Your task to perform on an android device: search for accent chairs on article.com Image 0: 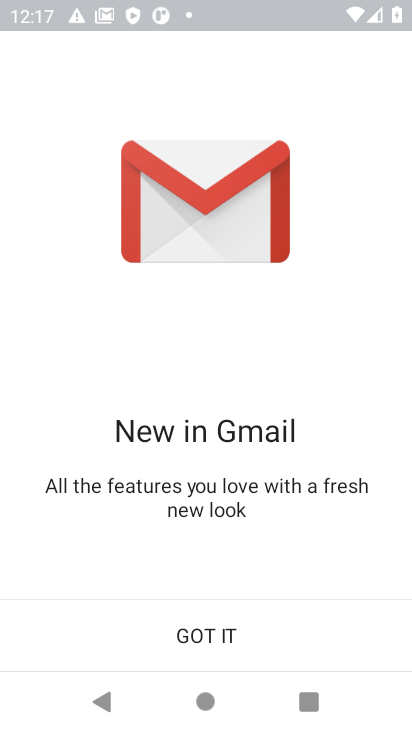
Step 0: press home button
Your task to perform on an android device: search for accent chairs on article.com Image 1: 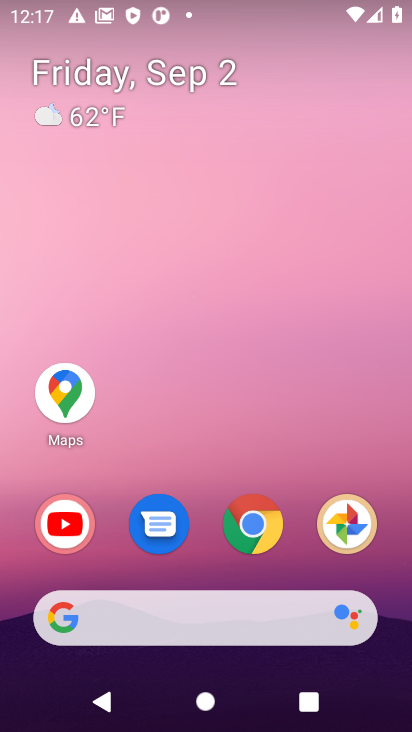
Step 1: click (270, 531)
Your task to perform on an android device: search for accent chairs on article.com Image 2: 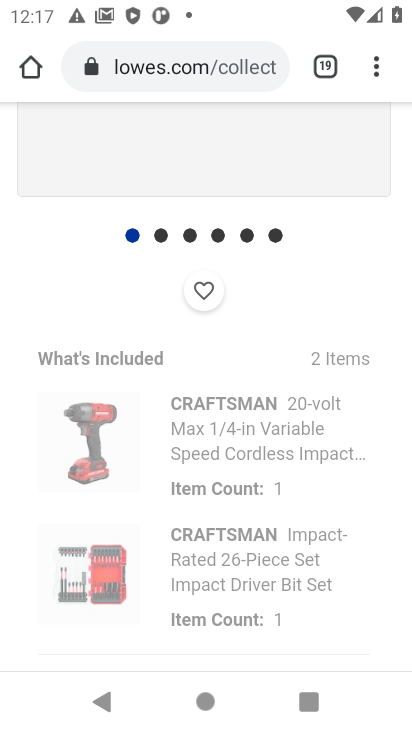
Step 2: click (329, 60)
Your task to perform on an android device: search for accent chairs on article.com Image 3: 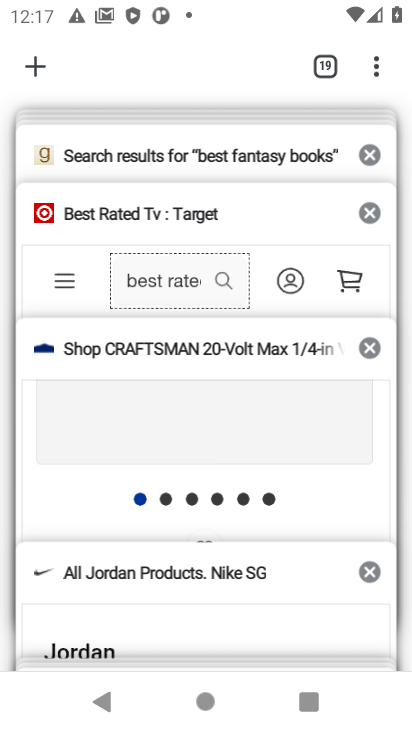
Step 3: click (37, 72)
Your task to perform on an android device: search for accent chairs on article.com Image 4: 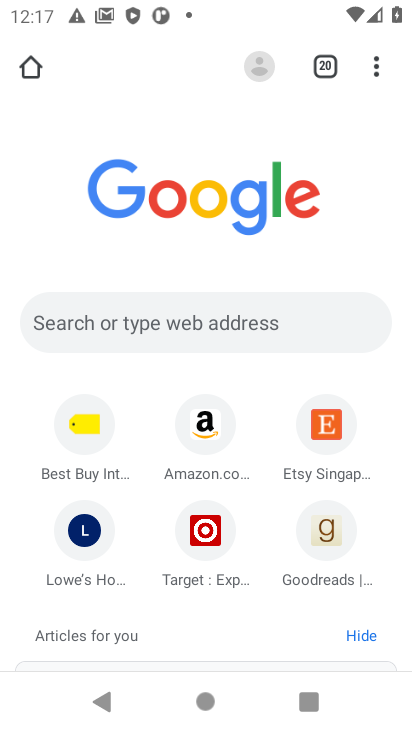
Step 4: click (273, 334)
Your task to perform on an android device: search for accent chairs on article.com Image 5: 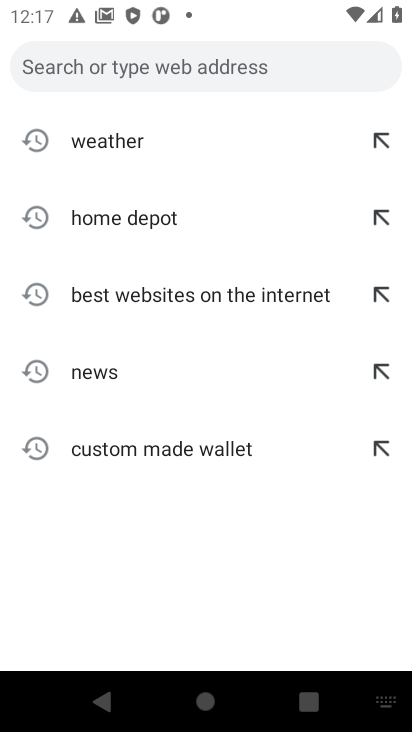
Step 5: type "article.com"
Your task to perform on an android device: search for accent chairs on article.com Image 6: 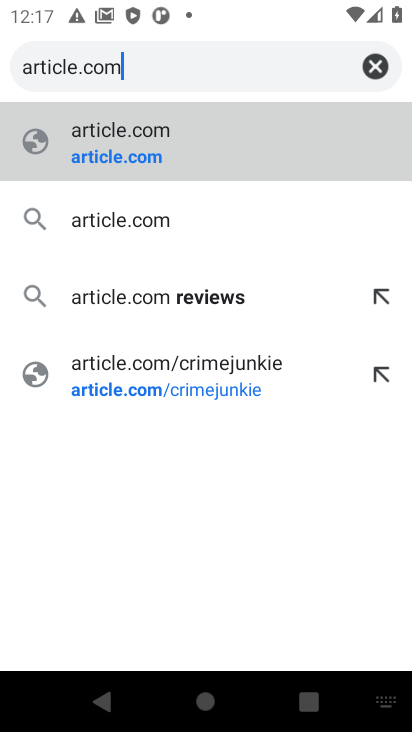
Step 6: click (185, 137)
Your task to perform on an android device: search for accent chairs on article.com Image 7: 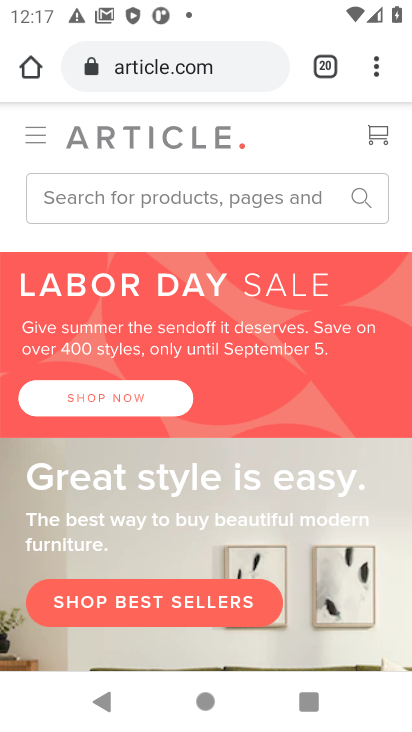
Step 7: click (229, 196)
Your task to perform on an android device: search for accent chairs on article.com Image 8: 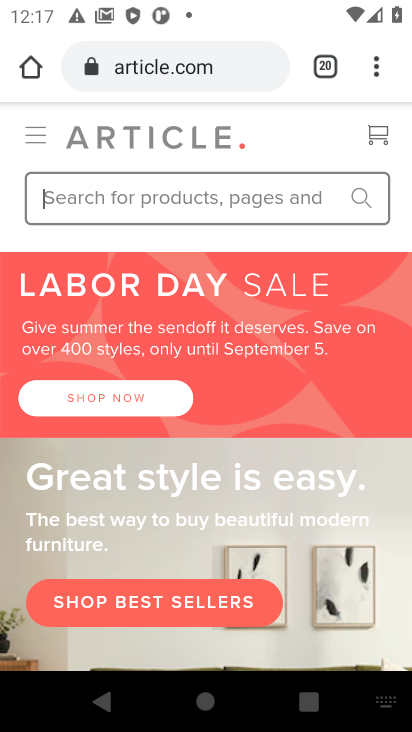
Step 8: type "accent chairs"
Your task to perform on an android device: search for accent chairs on article.com Image 9: 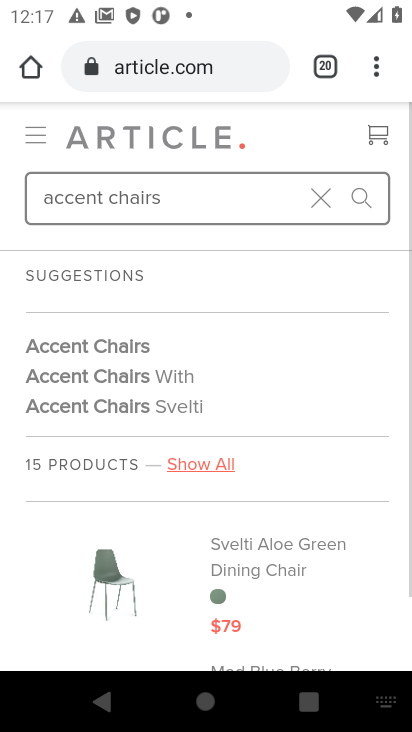
Step 9: click (352, 186)
Your task to perform on an android device: search for accent chairs on article.com Image 10: 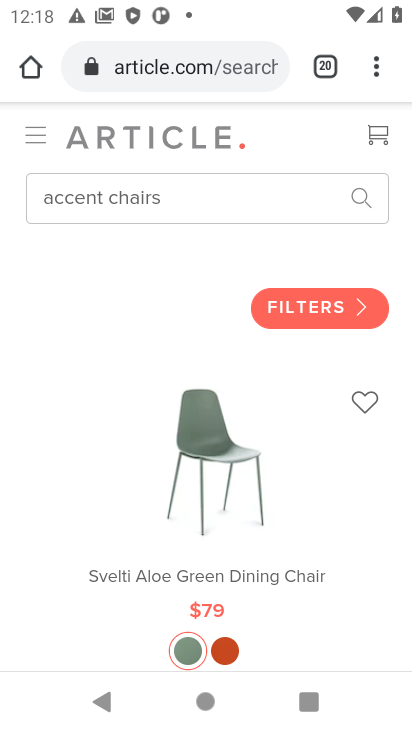
Step 10: task complete